Your task to perform on an android device: Go to Android settings Image 0: 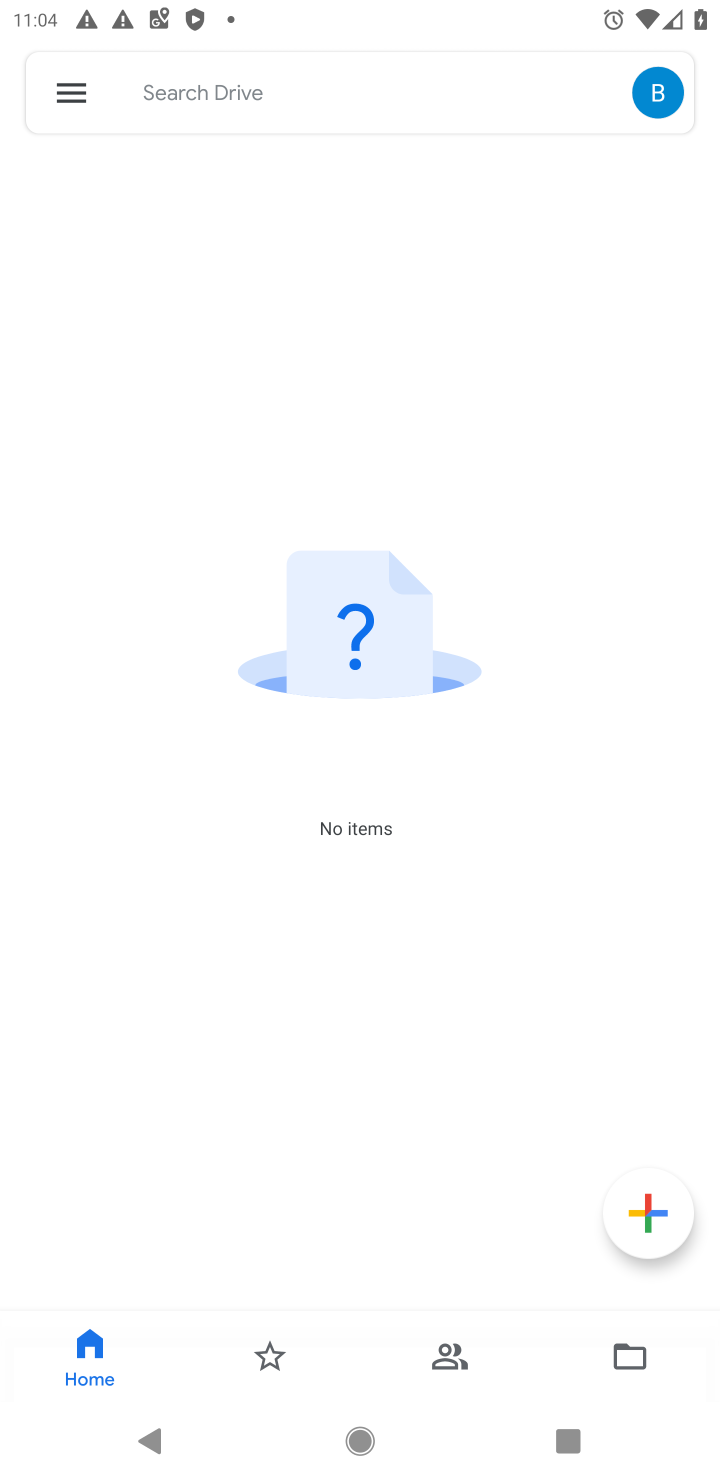
Step 0: press home button
Your task to perform on an android device: Go to Android settings Image 1: 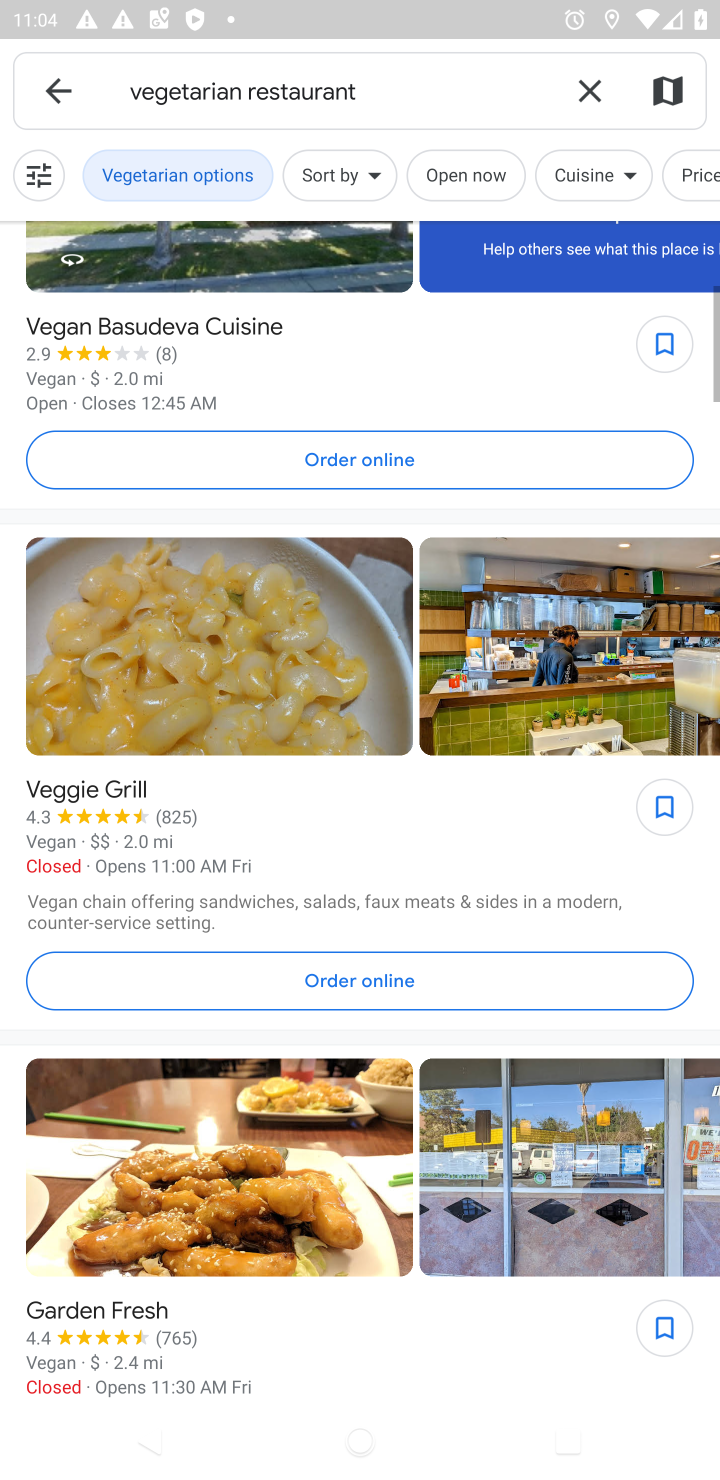
Step 1: press home button
Your task to perform on an android device: Go to Android settings Image 2: 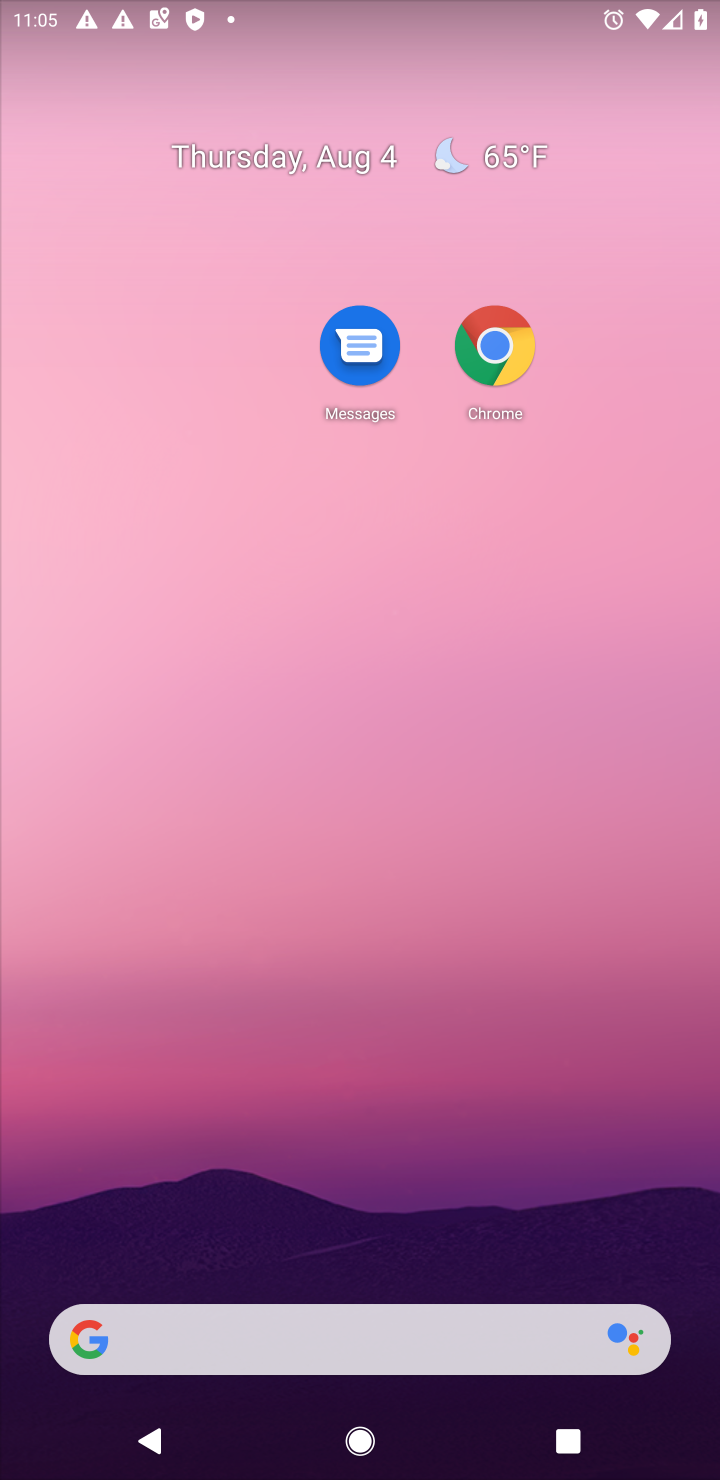
Step 2: drag from (490, 1267) to (643, 130)
Your task to perform on an android device: Go to Android settings Image 3: 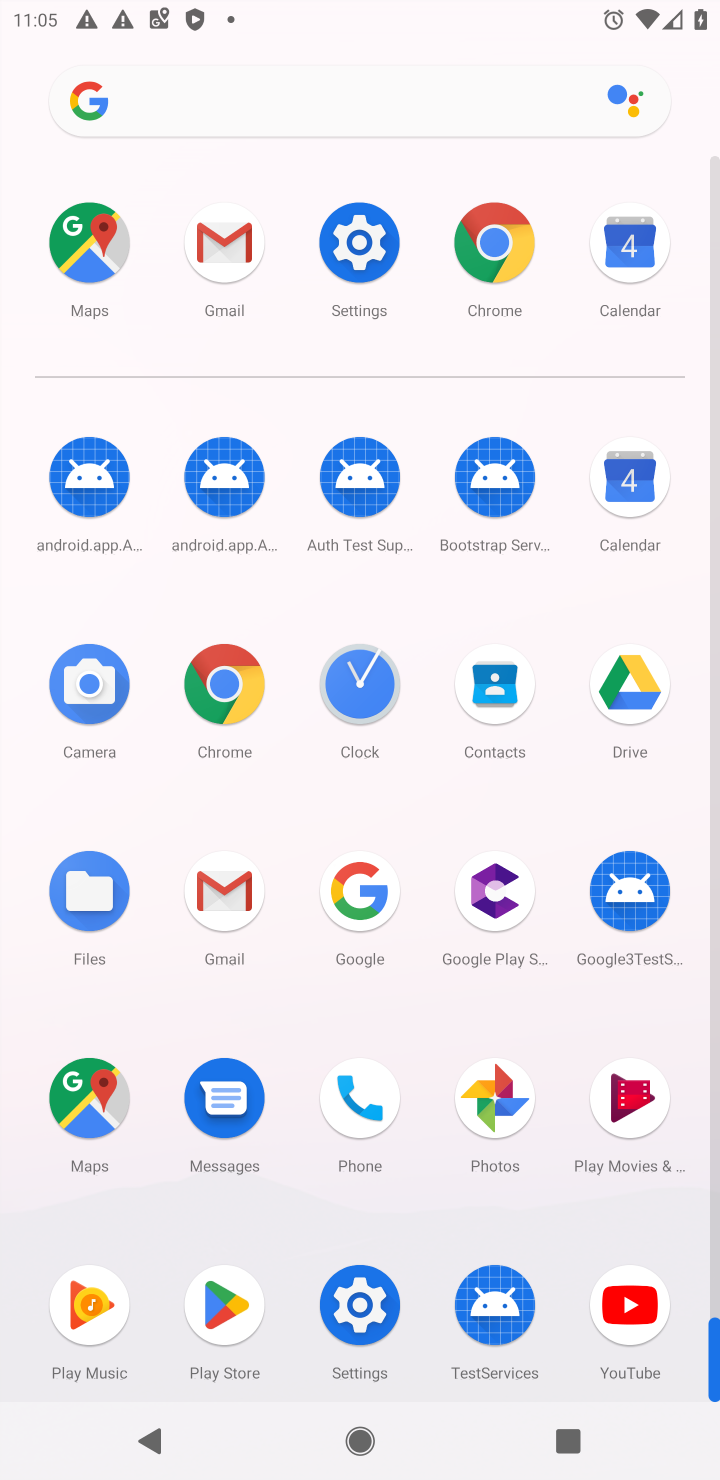
Step 3: click (355, 265)
Your task to perform on an android device: Go to Android settings Image 4: 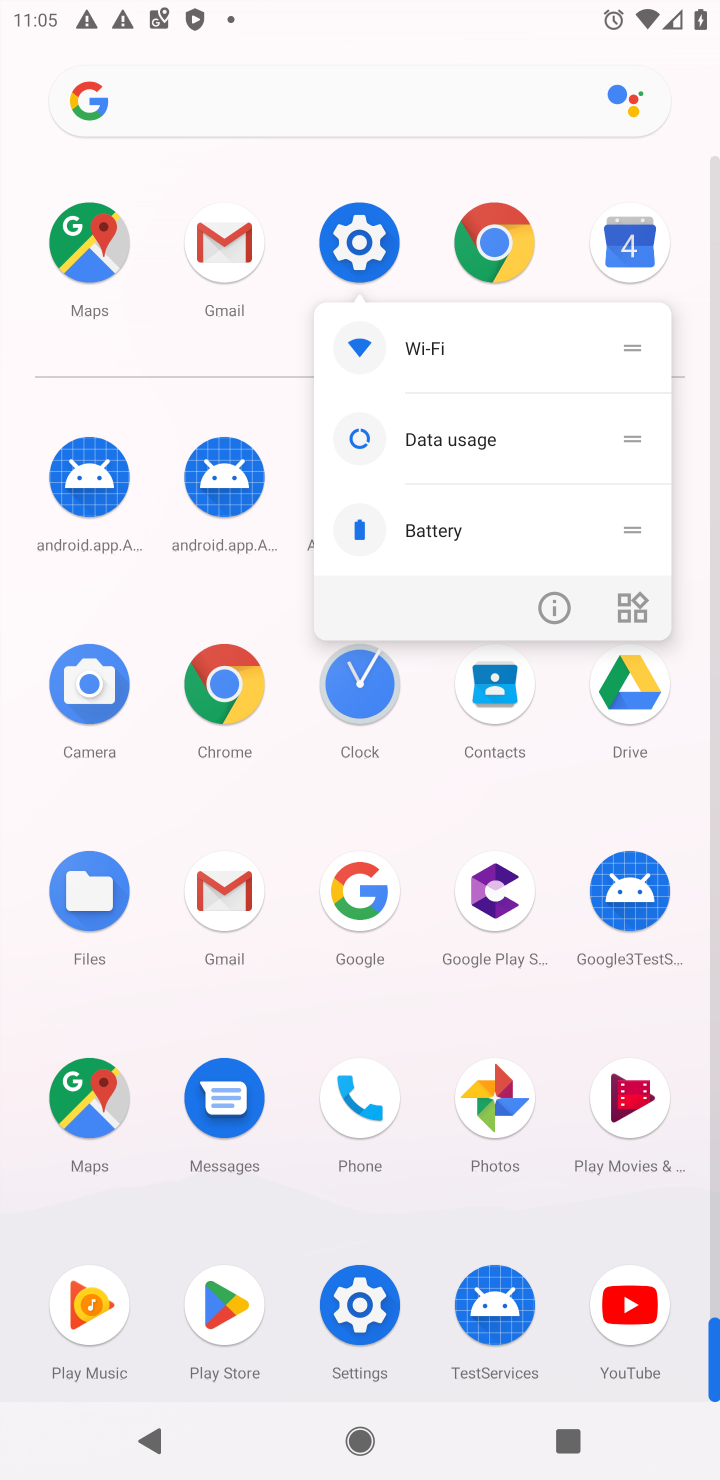
Step 4: click (365, 240)
Your task to perform on an android device: Go to Android settings Image 5: 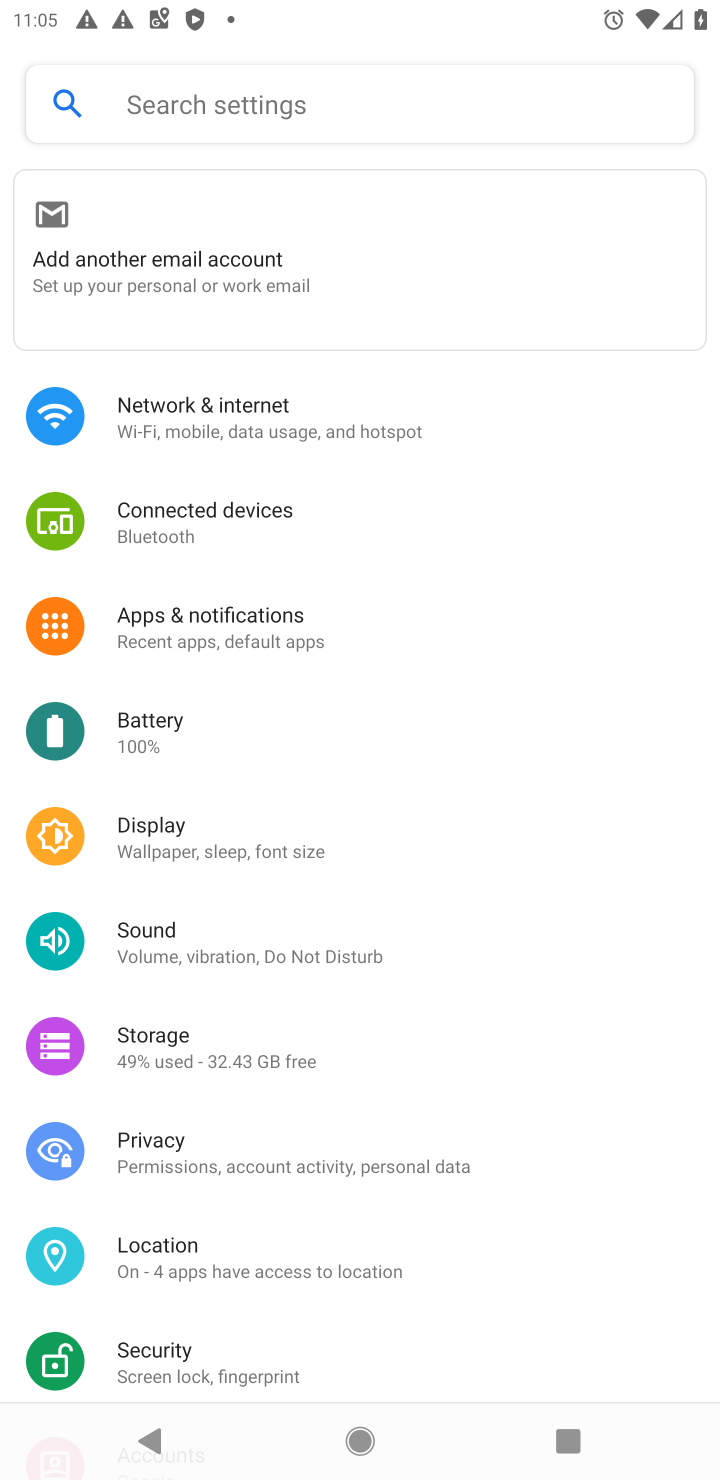
Step 5: task complete